Your task to perform on an android device: Do I have any events tomorrow? Image 0: 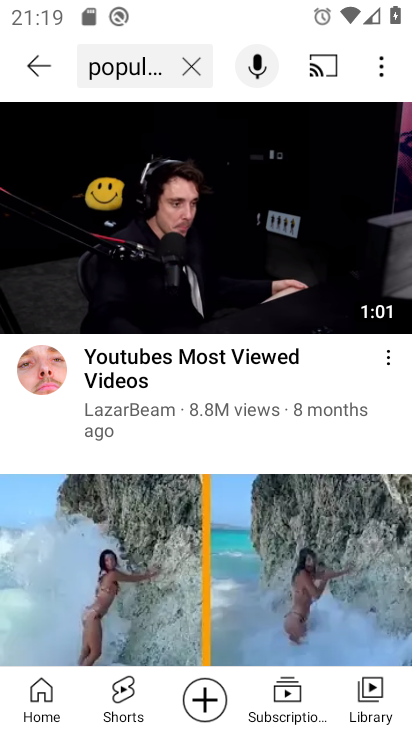
Step 0: press home button
Your task to perform on an android device: Do I have any events tomorrow? Image 1: 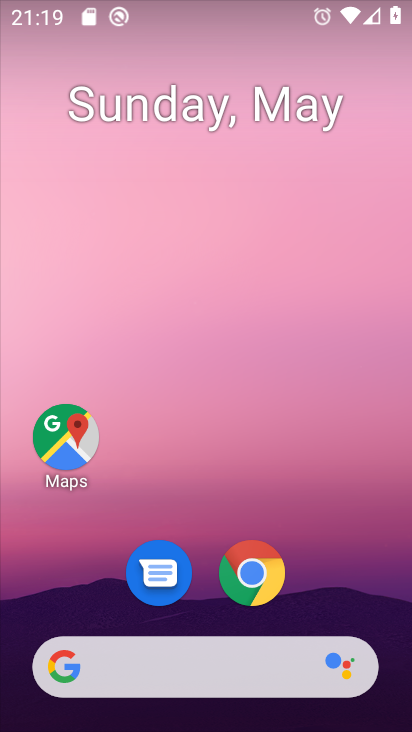
Step 1: drag from (199, 342) to (155, 5)
Your task to perform on an android device: Do I have any events tomorrow? Image 2: 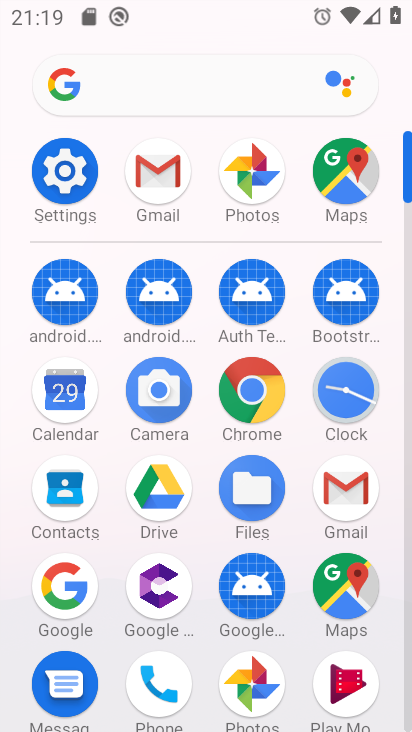
Step 2: click (65, 389)
Your task to perform on an android device: Do I have any events tomorrow? Image 3: 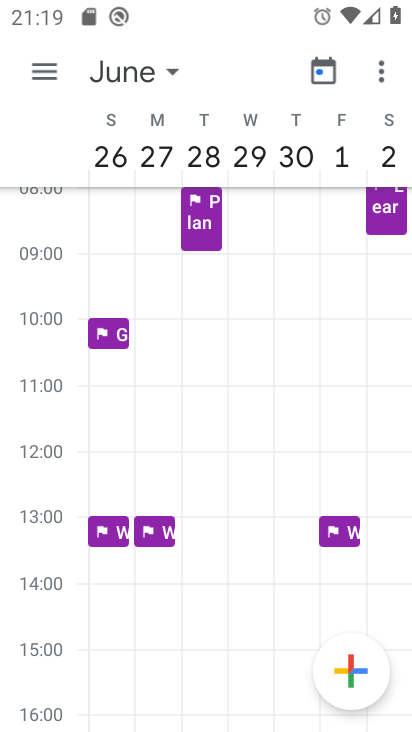
Step 3: drag from (132, 277) to (398, 325)
Your task to perform on an android device: Do I have any events tomorrow? Image 4: 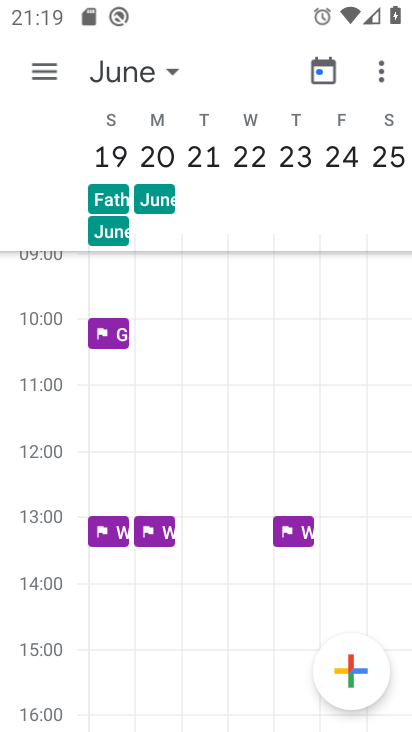
Step 4: drag from (107, 391) to (408, 440)
Your task to perform on an android device: Do I have any events tomorrow? Image 5: 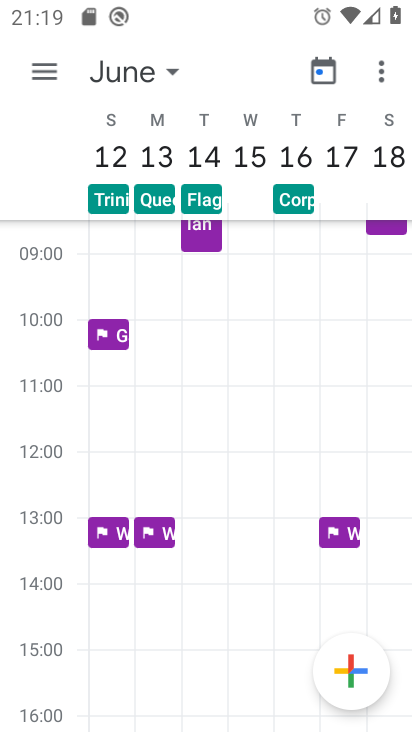
Step 5: drag from (136, 459) to (383, 458)
Your task to perform on an android device: Do I have any events tomorrow? Image 6: 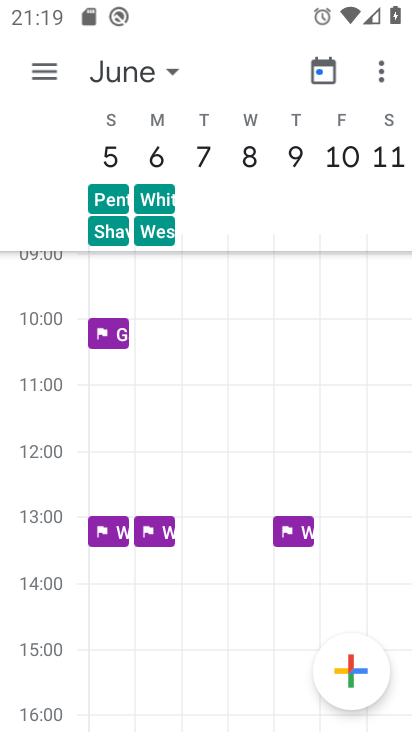
Step 6: drag from (132, 480) to (403, 455)
Your task to perform on an android device: Do I have any events tomorrow? Image 7: 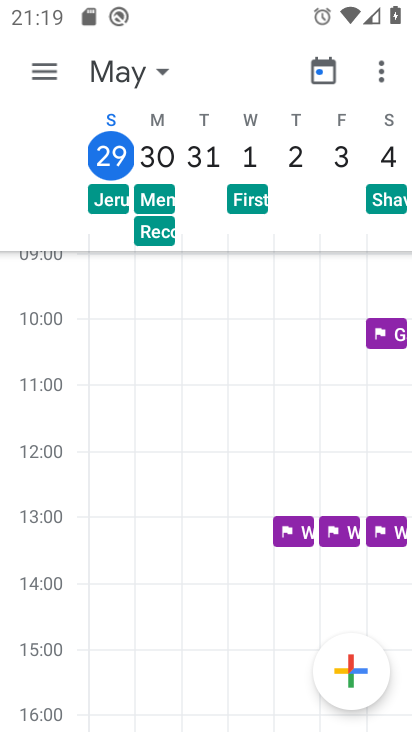
Step 7: click (115, 151)
Your task to perform on an android device: Do I have any events tomorrow? Image 8: 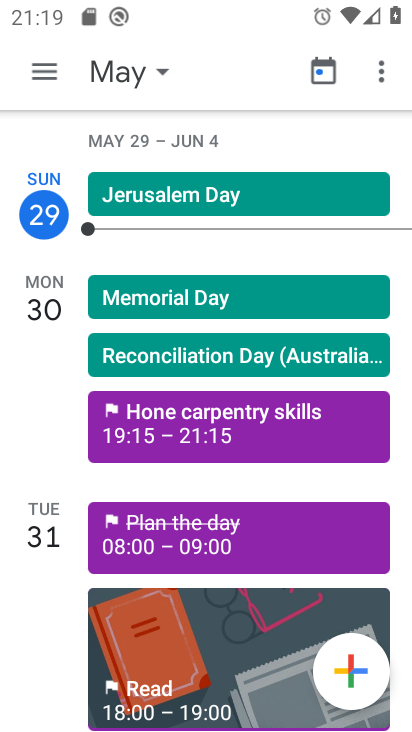
Step 8: task complete